Your task to perform on an android device: turn off sleep mode Image 0: 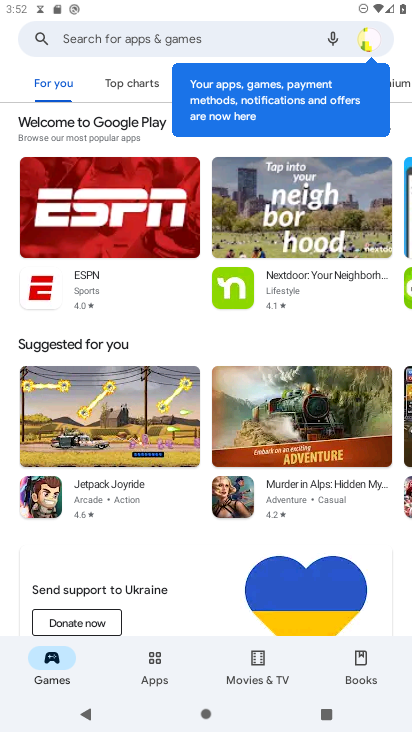
Step 0: press home button
Your task to perform on an android device: turn off sleep mode Image 1: 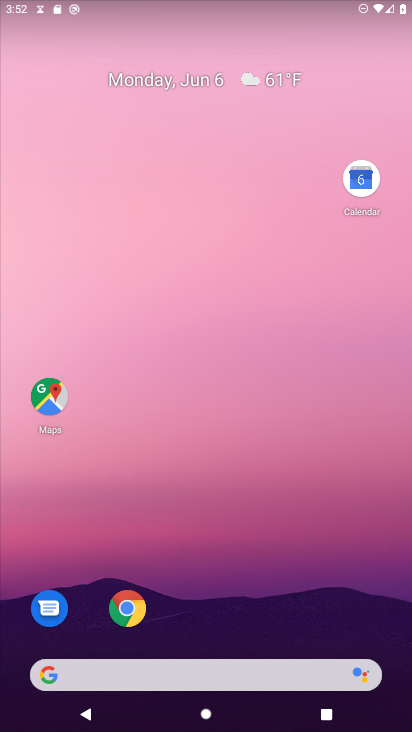
Step 1: drag from (208, 630) to (218, 54)
Your task to perform on an android device: turn off sleep mode Image 2: 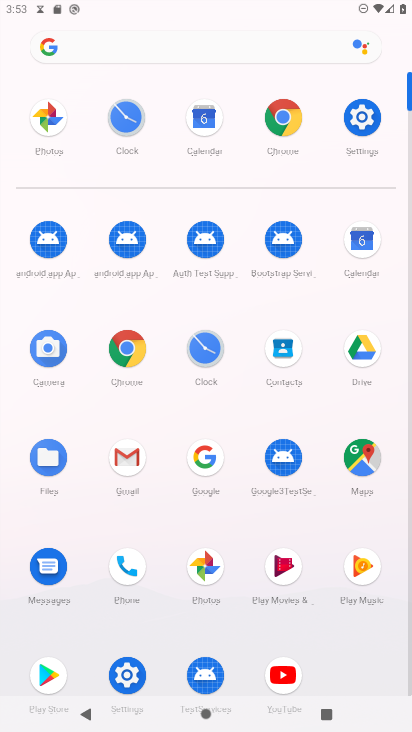
Step 2: click (113, 679)
Your task to perform on an android device: turn off sleep mode Image 3: 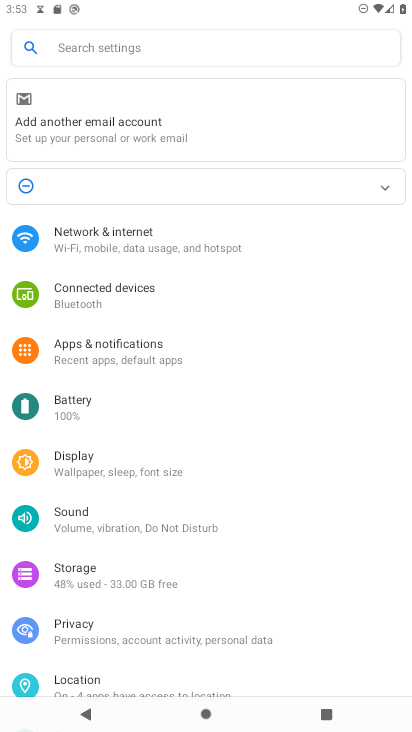
Step 3: task complete